Your task to perform on an android device: Go to ESPN.com Image 0: 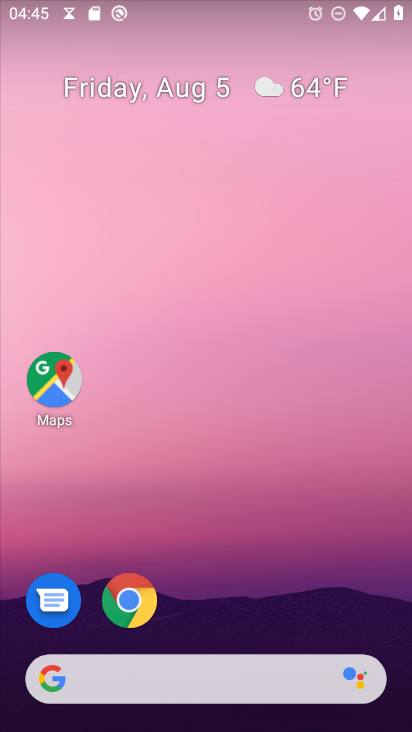
Step 0: click (130, 602)
Your task to perform on an android device: Go to ESPN.com Image 1: 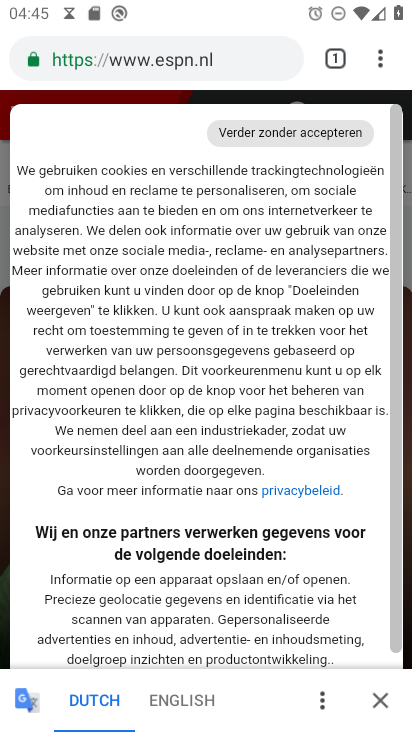
Step 1: click (247, 56)
Your task to perform on an android device: Go to ESPN.com Image 2: 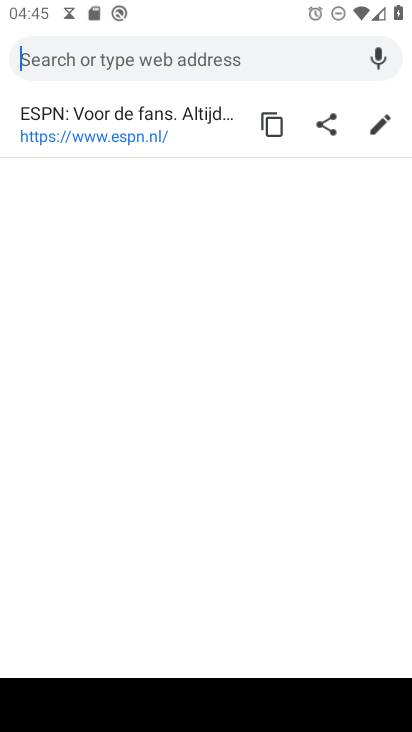
Step 2: click (177, 130)
Your task to perform on an android device: Go to ESPN.com Image 3: 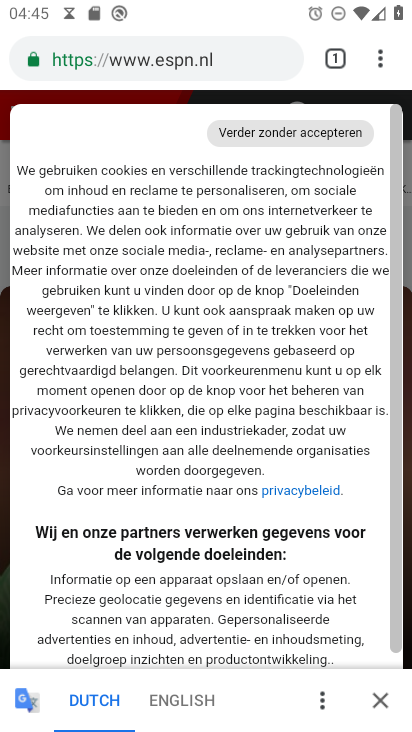
Step 3: task complete